Your task to perform on an android device: Find coffee shops on Maps Image 0: 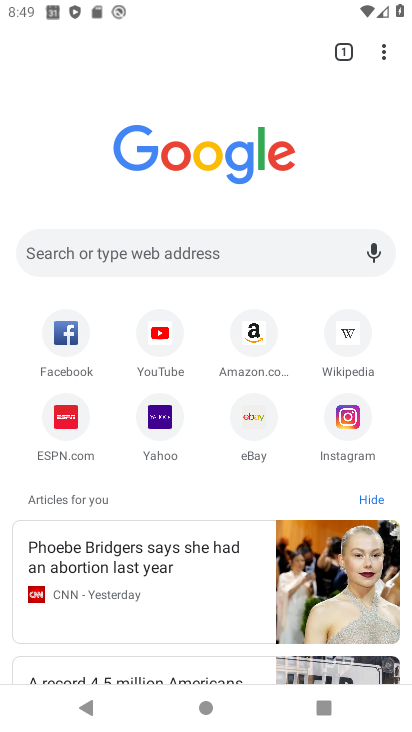
Step 0: press home button
Your task to perform on an android device: Find coffee shops on Maps Image 1: 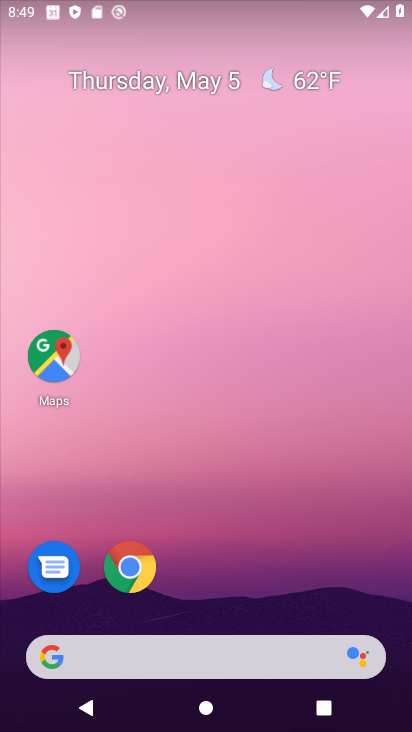
Step 1: drag from (234, 727) to (235, 252)
Your task to perform on an android device: Find coffee shops on Maps Image 2: 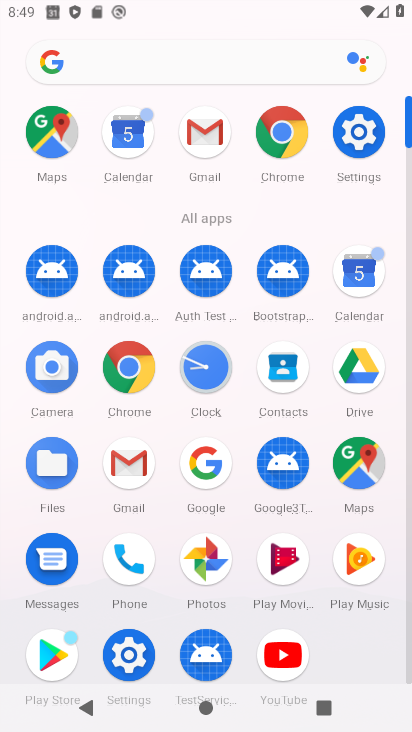
Step 2: click (358, 475)
Your task to perform on an android device: Find coffee shops on Maps Image 3: 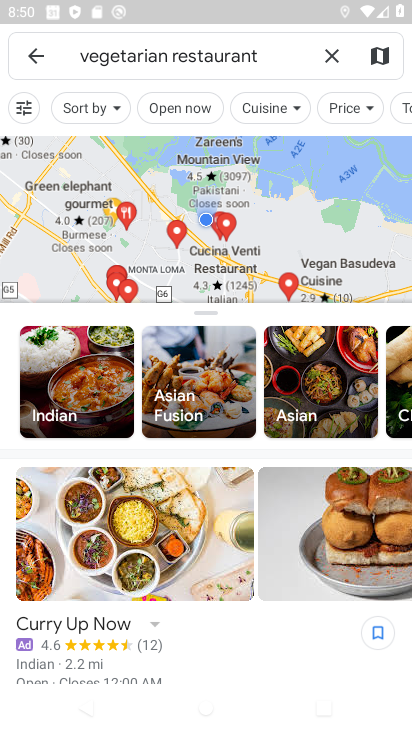
Step 3: click (327, 57)
Your task to perform on an android device: Find coffee shops on Maps Image 4: 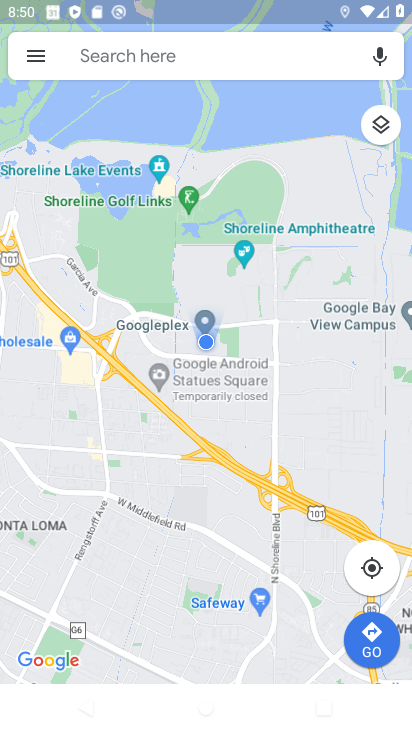
Step 4: click (219, 54)
Your task to perform on an android device: Find coffee shops on Maps Image 5: 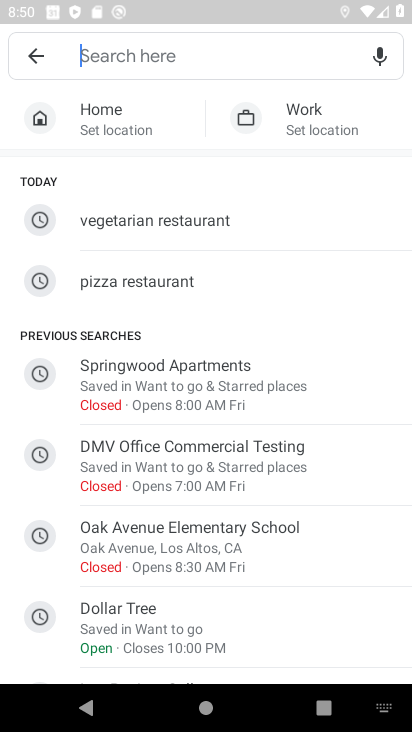
Step 5: type "coffee shops"
Your task to perform on an android device: Find coffee shops on Maps Image 6: 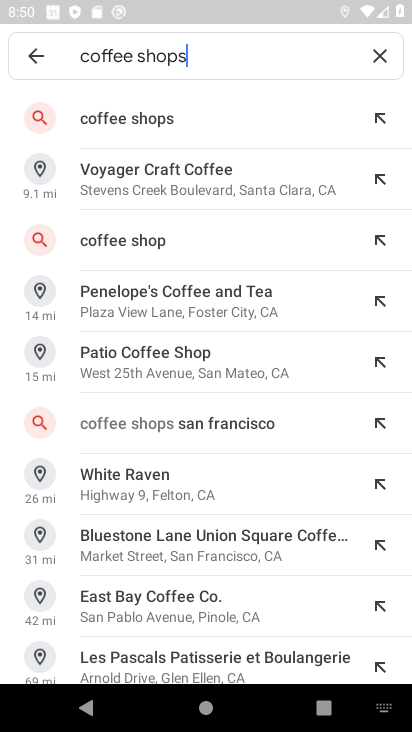
Step 6: click (152, 120)
Your task to perform on an android device: Find coffee shops on Maps Image 7: 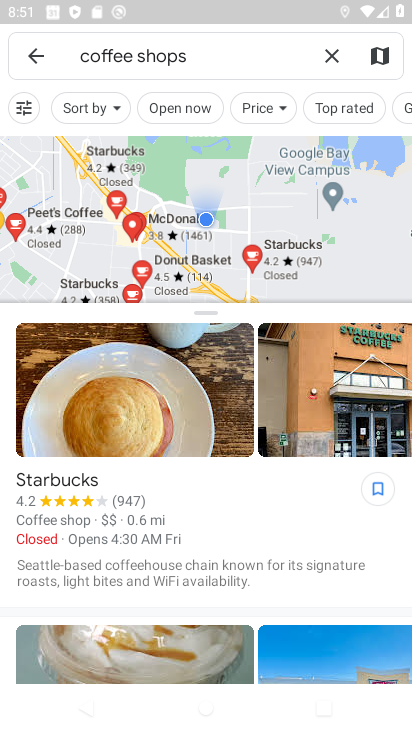
Step 7: task complete